Your task to perform on an android device: Open Yahoo.com Image 0: 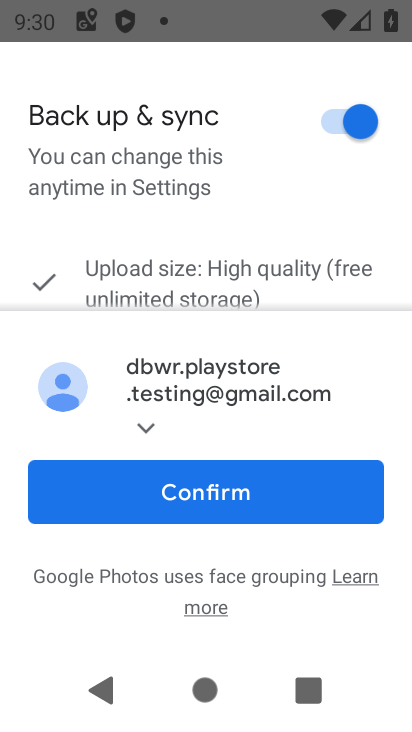
Step 0: press home button
Your task to perform on an android device: Open Yahoo.com Image 1: 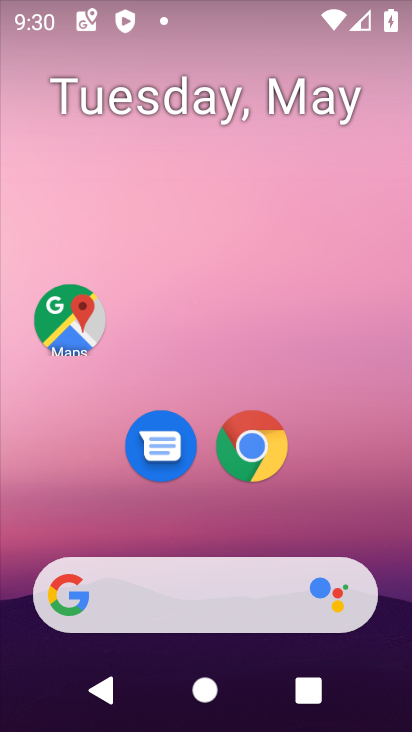
Step 1: click (260, 450)
Your task to perform on an android device: Open Yahoo.com Image 2: 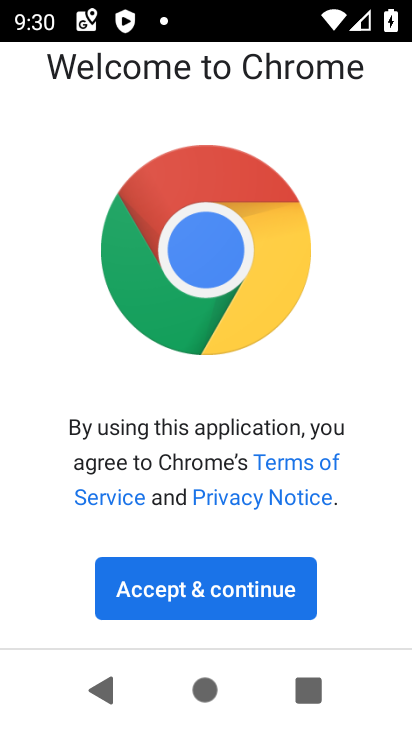
Step 2: click (211, 575)
Your task to perform on an android device: Open Yahoo.com Image 3: 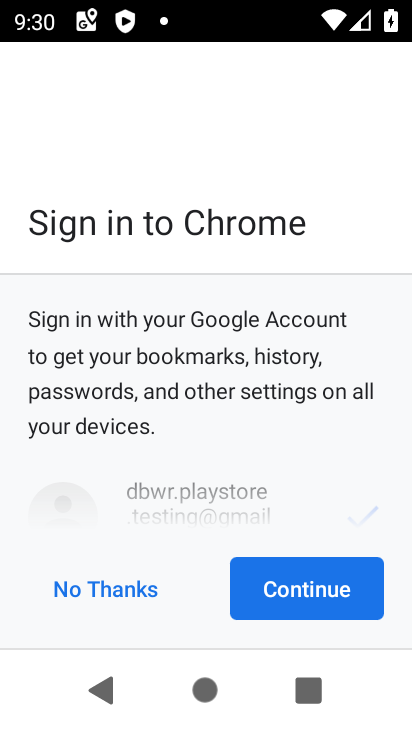
Step 3: click (276, 582)
Your task to perform on an android device: Open Yahoo.com Image 4: 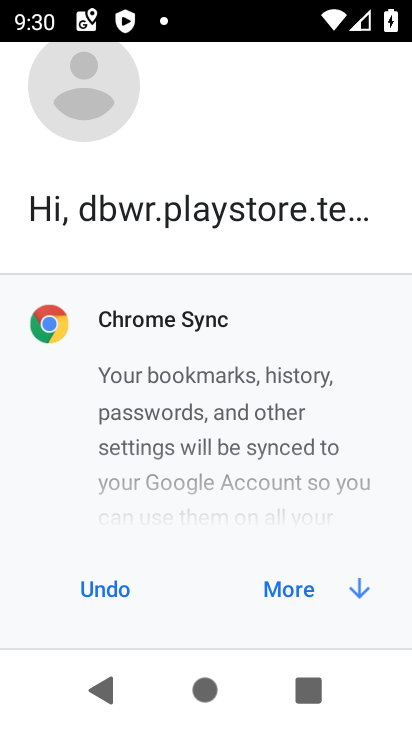
Step 4: click (288, 581)
Your task to perform on an android device: Open Yahoo.com Image 5: 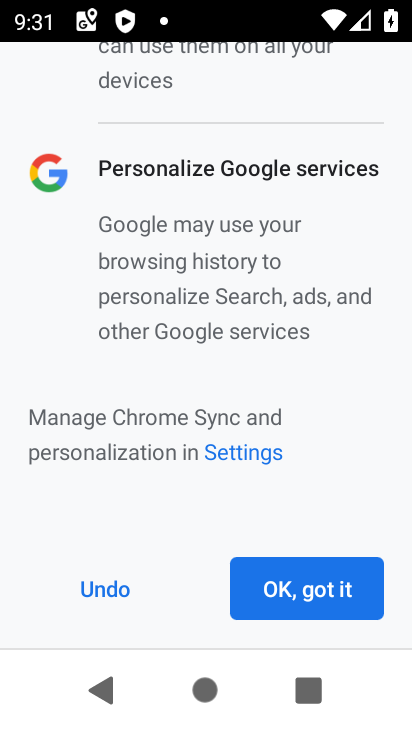
Step 5: click (288, 581)
Your task to perform on an android device: Open Yahoo.com Image 6: 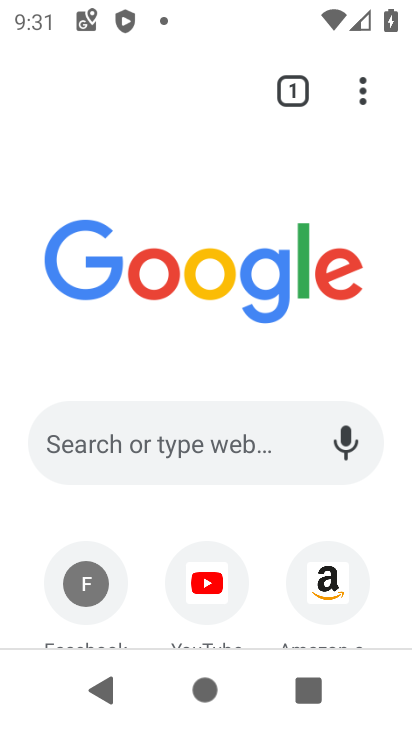
Step 6: drag from (268, 590) to (236, 266)
Your task to perform on an android device: Open Yahoo.com Image 7: 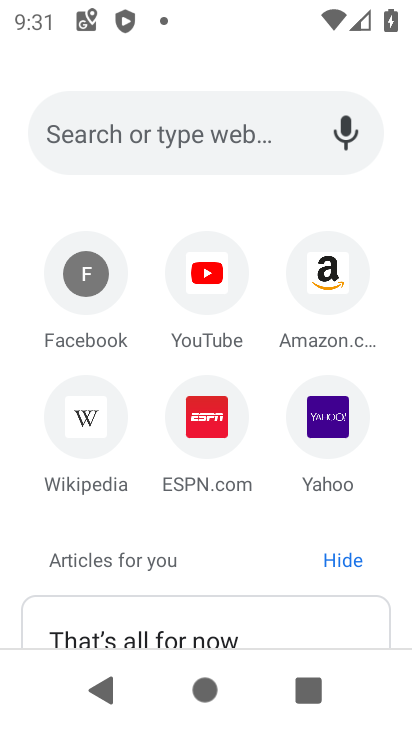
Step 7: click (316, 433)
Your task to perform on an android device: Open Yahoo.com Image 8: 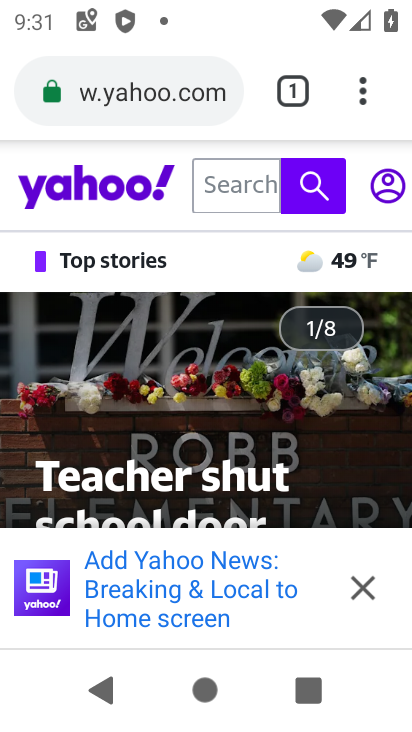
Step 8: task complete